Your task to perform on an android device: find photos in the google photos app Image 0: 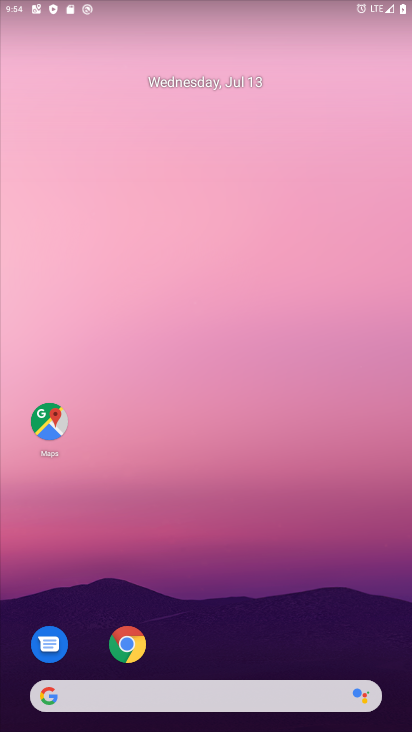
Step 0: drag from (179, 699) to (184, 70)
Your task to perform on an android device: find photos in the google photos app Image 1: 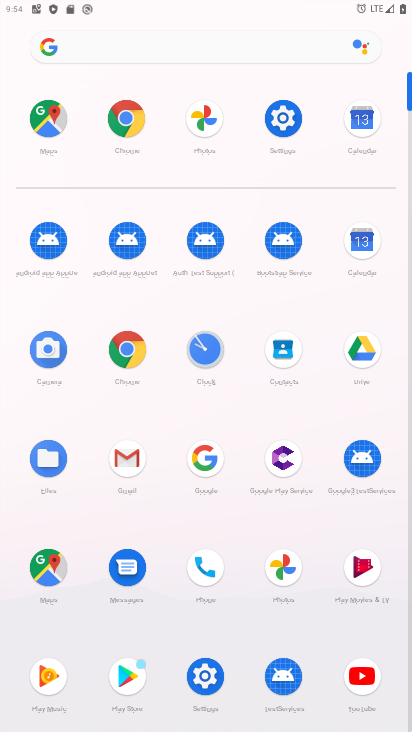
Step 1: click (285, 560)
Your task to perform on an android device: find photos in the google photos app Image 2: 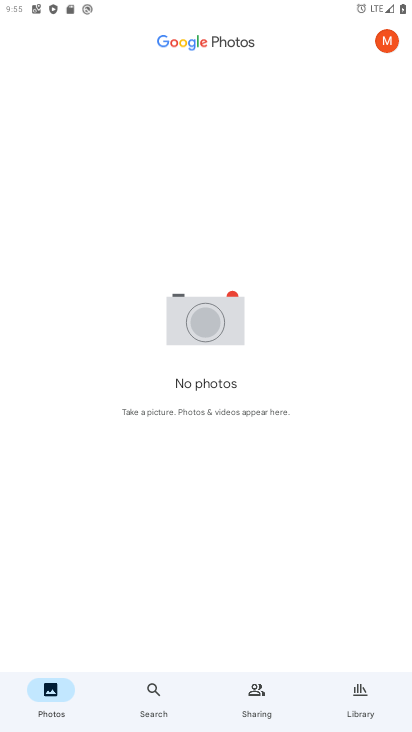
Step 2: task complete